Your task to perform on an android device: Open wifi settings Image 0: 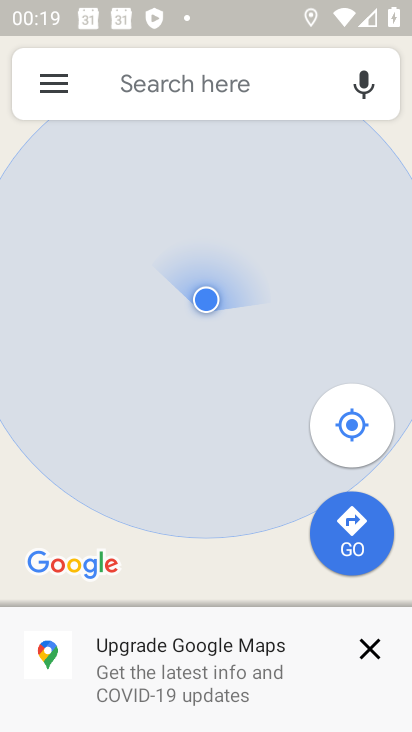
Step 0: press home button
Your task to perform on an android device: Open wifi settings Image 1: 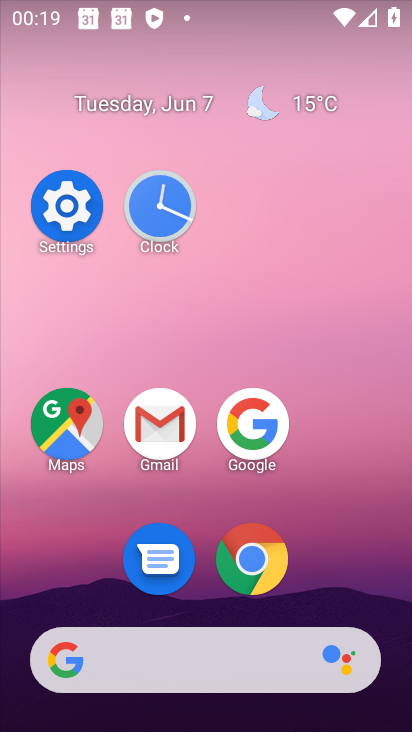
Step 1: click (52, 229)
Your task to perform on an android device: Open wifi settings Image 2: 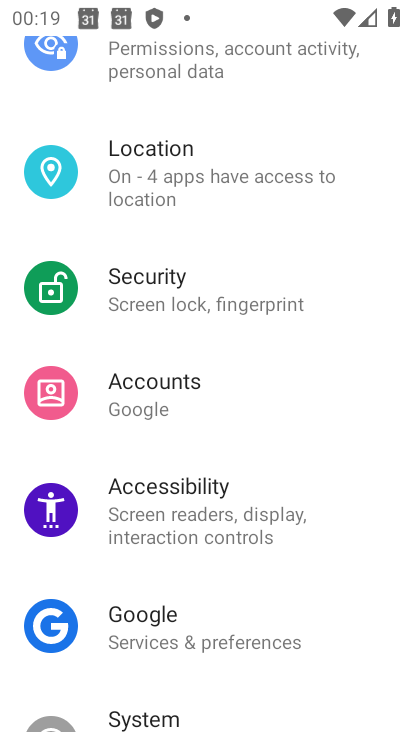
Step 2: drag from (239, 174) to (169, 579)
Your task to perform on an android device: Open wifi settings Image 3: 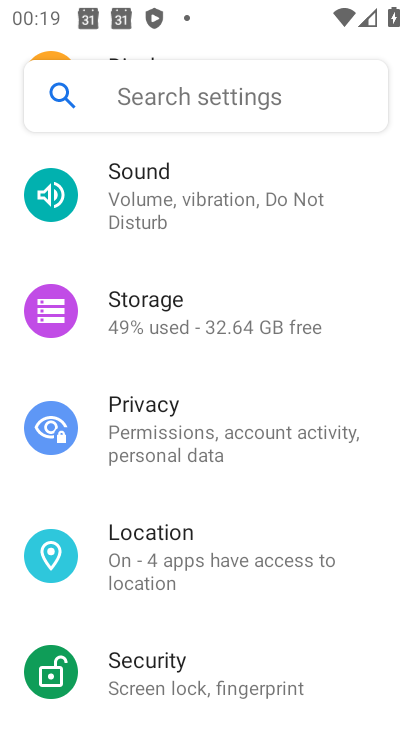
Step 3: drag from (249, 171) to (138, 612)
Your task to perform on an android device: Open wifi settings Image 4: 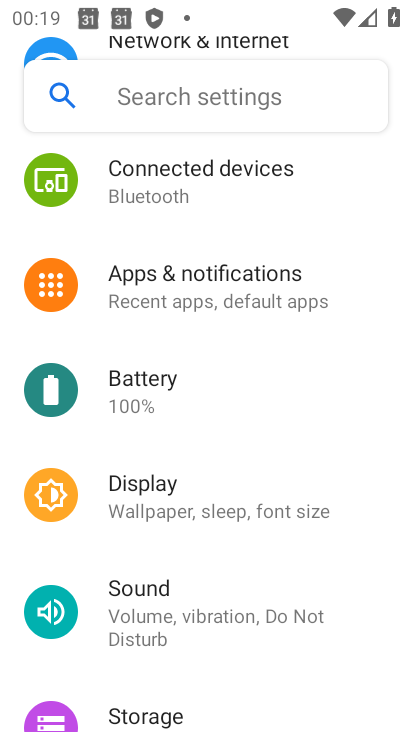
Step 4: drag from (263, 165) to (214, 453)
Your task to perform on an android device: Open wifi settings Image 5: 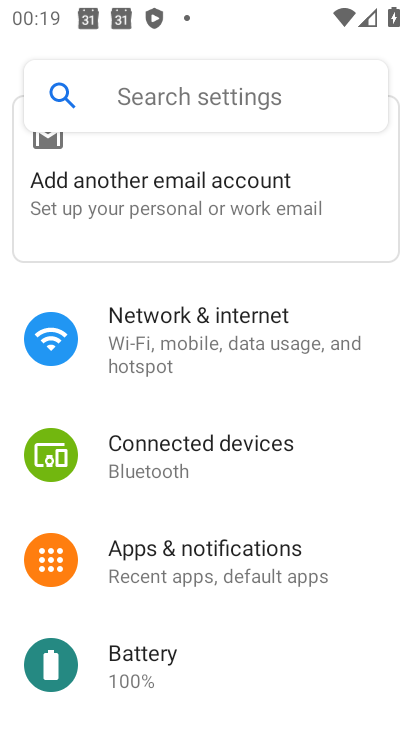
Step 5: click (258, 344)
Your task to perform on an android device: Open wifi settings Image 6: 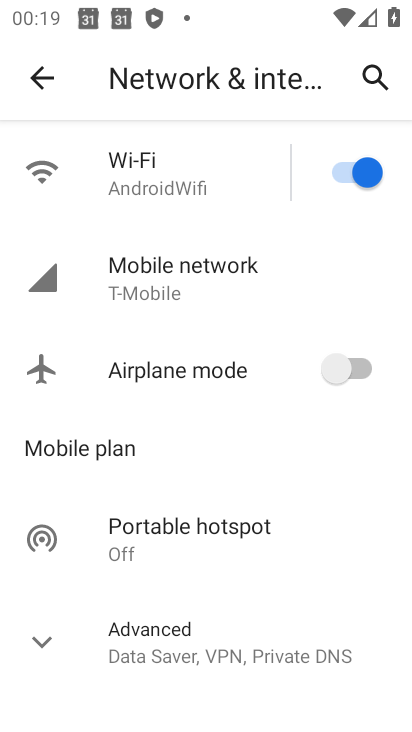
Step 6: click (159, 167)
Your task to perform on an android device: Open wifi settings Image 7: 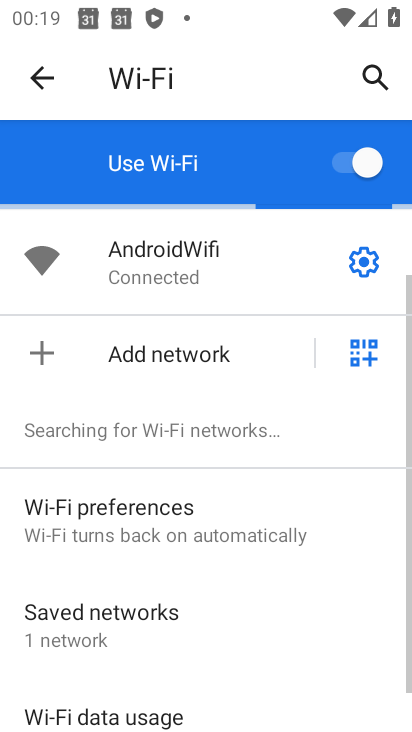
Step 7: click (372, 256)
Your task to perform on an android device: Open wifi settings Image 8: 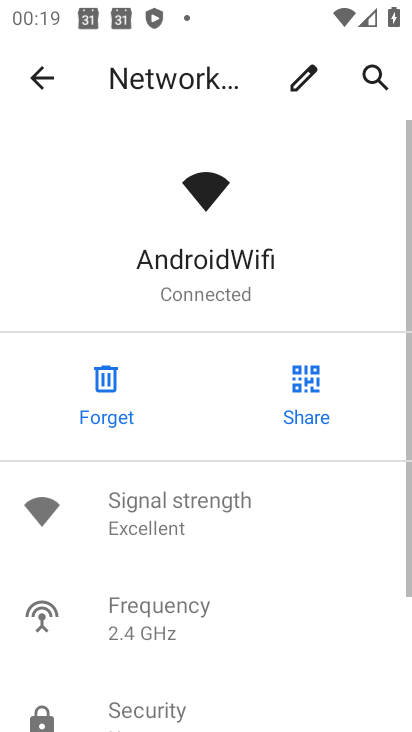
Step 8: task complete